Your task to perform on an android device: Search for usb-c on amazon.com, select the first entry, and add it to the cart. Image 0: 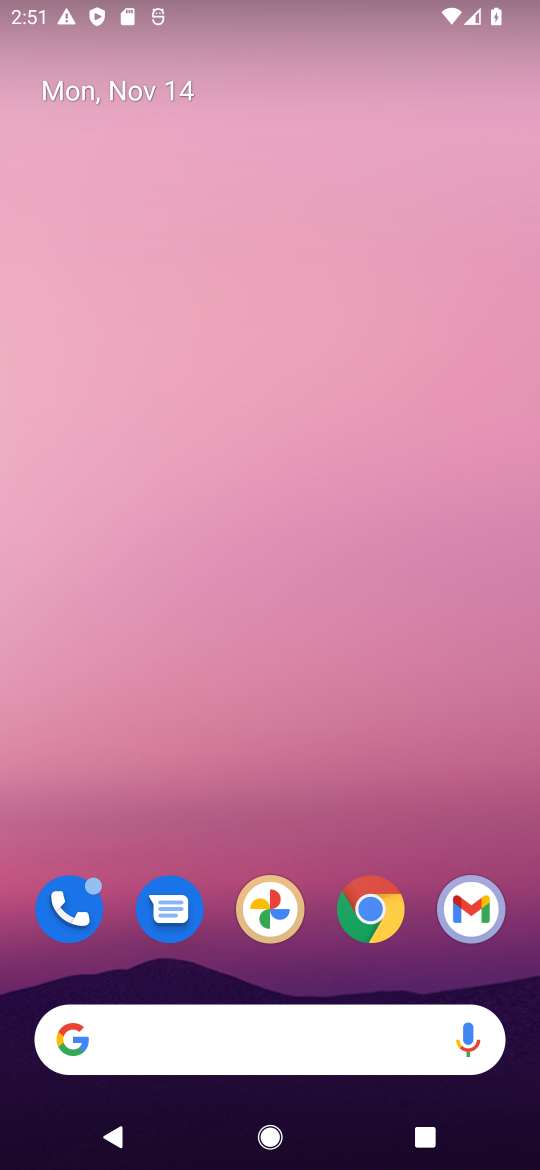
Step 0: drag from (325, 970) to (442, 96)
Your task to perform on an android device: Search for usb-c on amazon.com, select the first entry, and add it to the cart. Image 1: 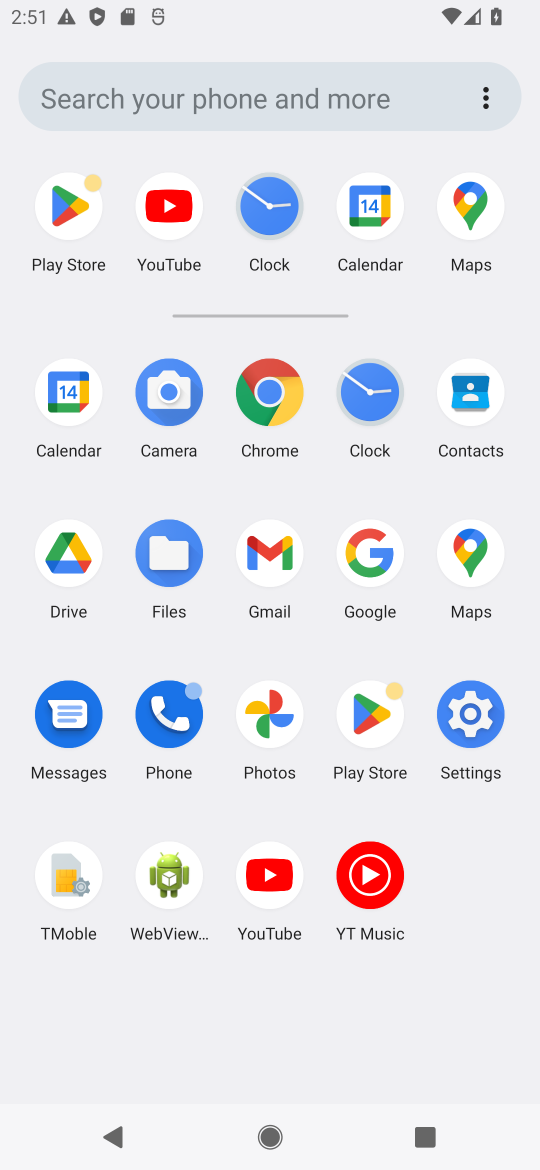
Step 1: click (272, 384)
Your task to perform on an android device: Search for usb-c on amazon.com, select the first entry, and add it to the cart. Image 2: 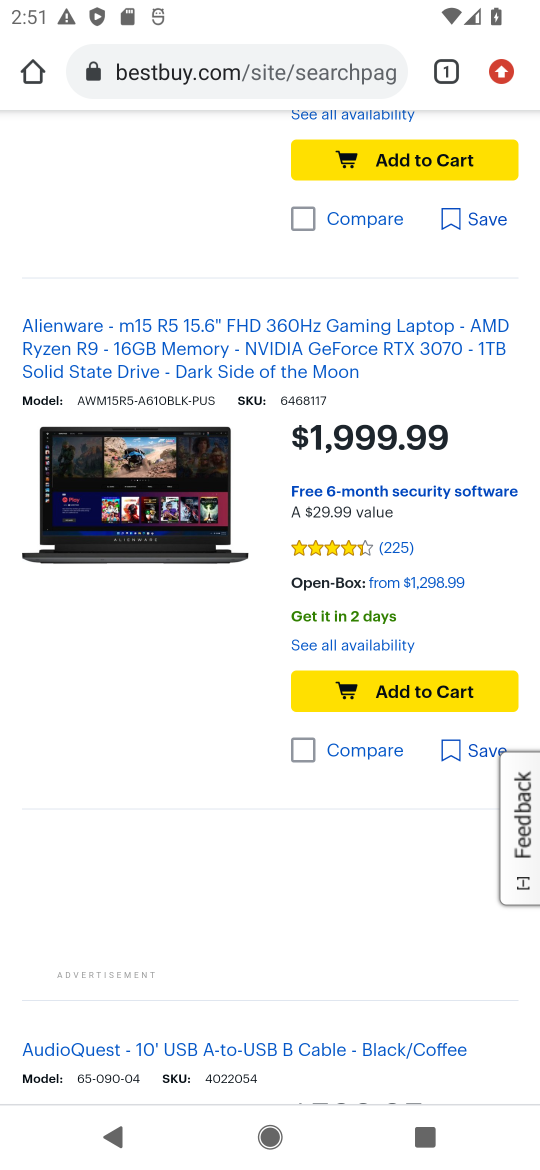
Step 2: click (233, 65)
Your task to perform on an android device: Search for usb-c on amazon.com, select the first entry, and add it to the cart. Image 3: 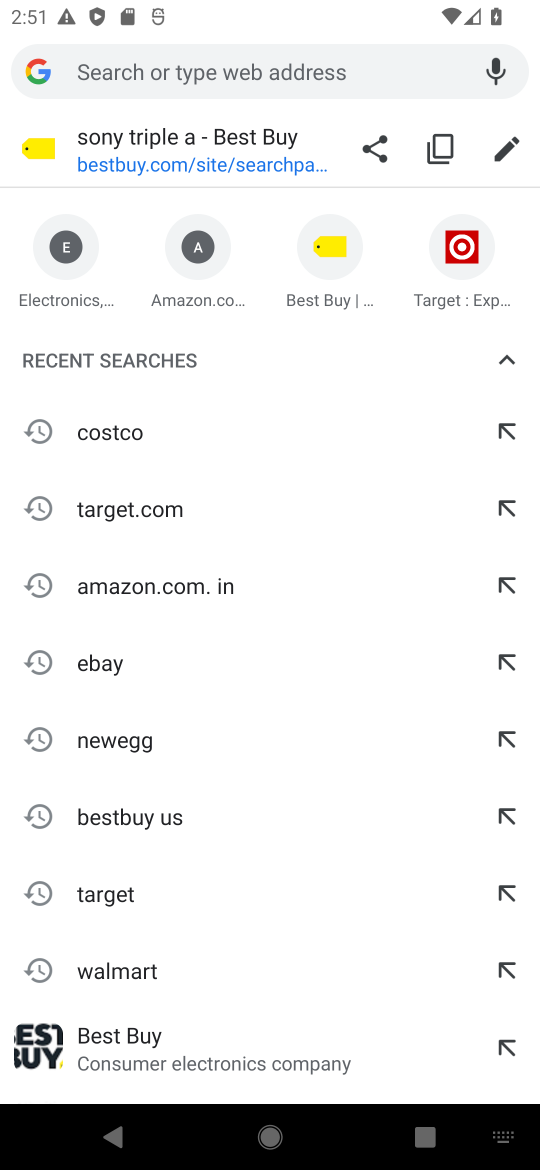
Step 3: type "amazon.com"
Your task to perform on an android device: Search for usb-c on amazon.com, select the first entry, and add it to the cart. Image 4: 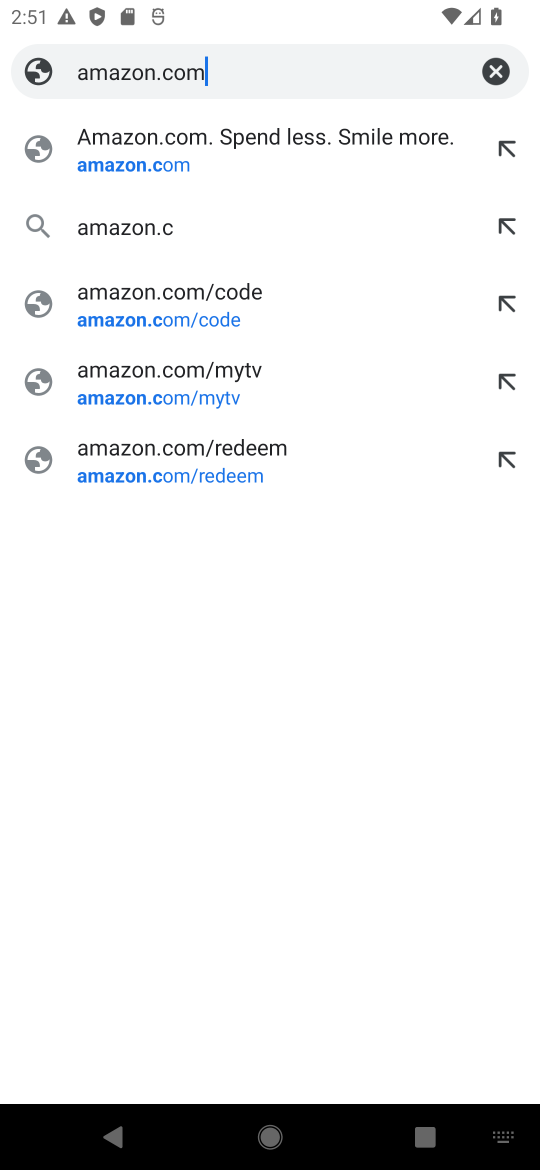
Step 4: press enter
Your task to perform on an android device: Search for usb-c on amazon.com, select the first entry, and add it to the cart. Image 5: 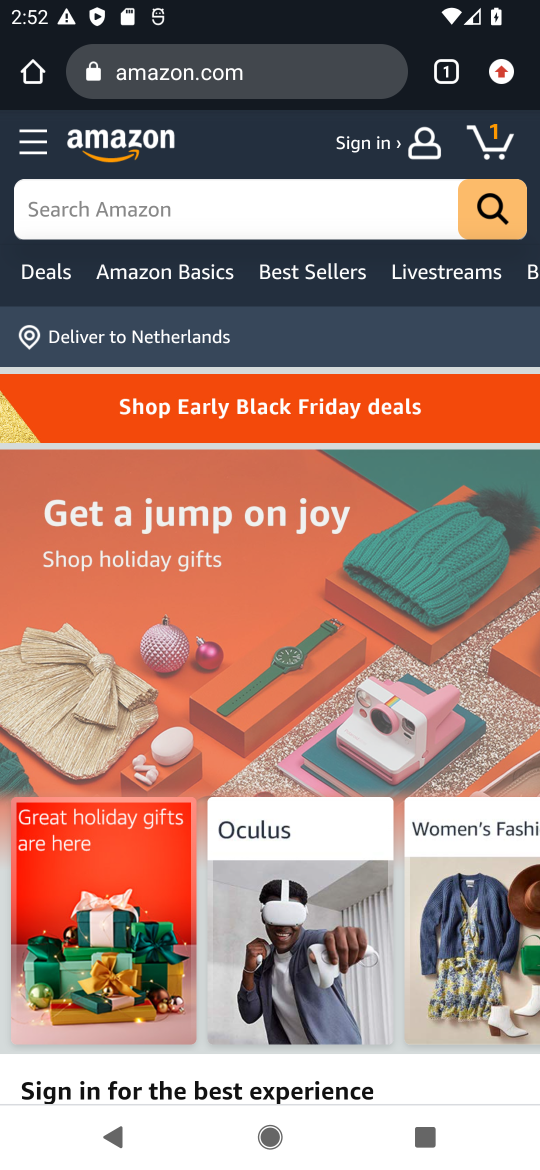
Step 5: click (300, 213)
Your task to perform on an android device: Search for usb-c on amazon.com, select the first entry, and add it to the cart. Image 6: 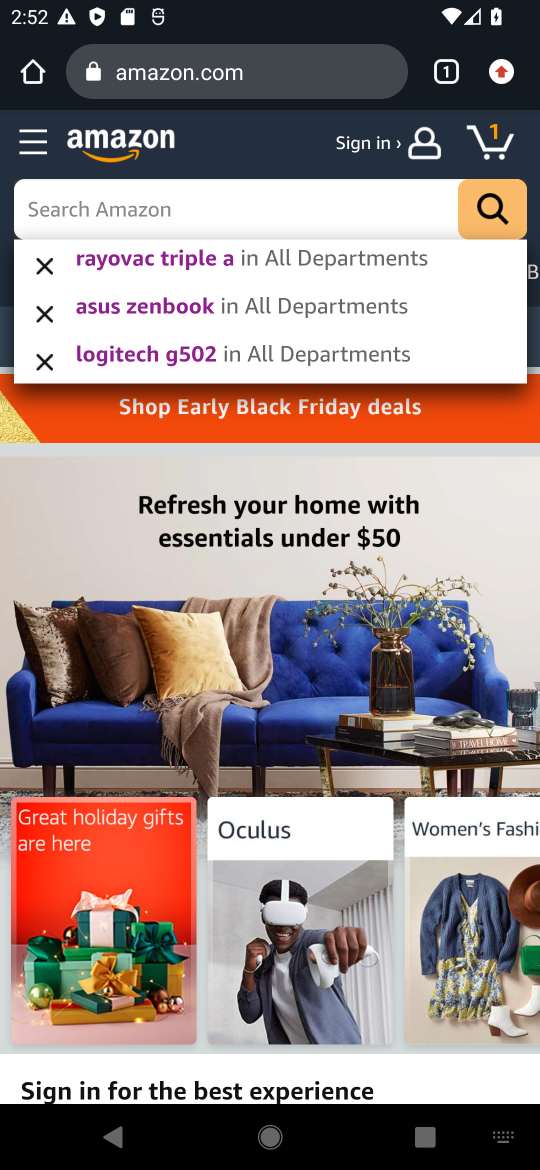
Step 6: type "usb-c"
Your task to perform on an android device: Search for usb-c on amazon.com, select the first entry, and add it to the cart. Image 7: 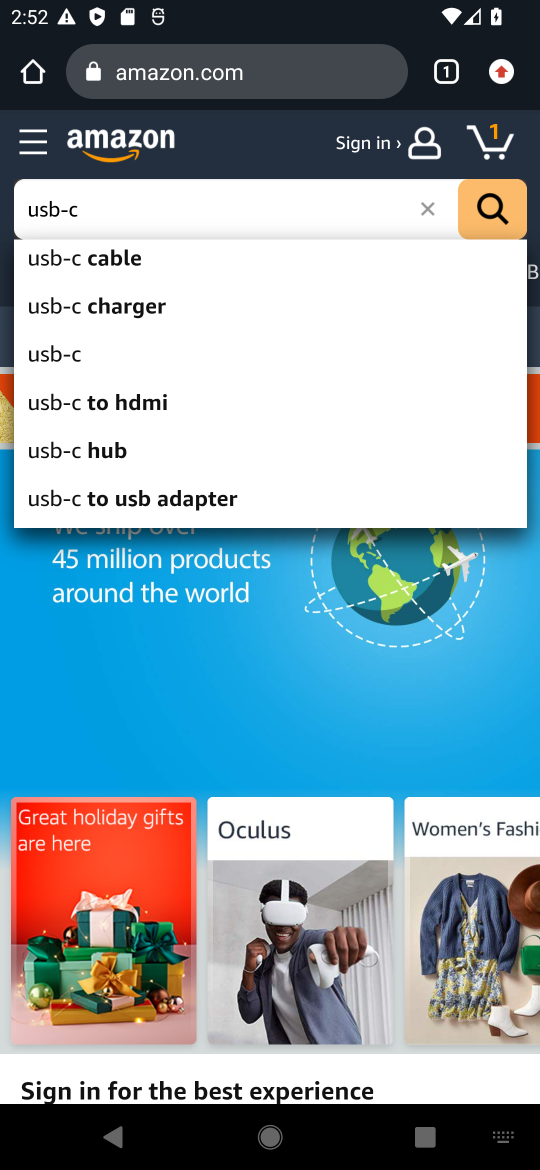
Step 7: press enter
Your task to perform on an android device: Search for usb-c on amazon.com, select the first entry, and add it to the cart. Image 8: 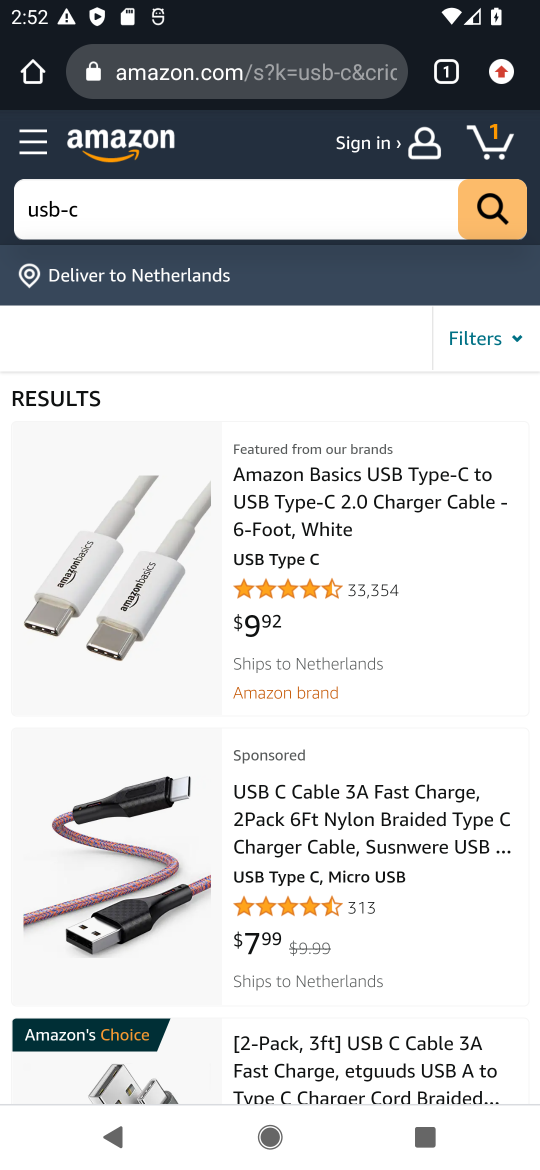
Step 8: drag from (251, 974) to (308, 584)
Your task to perform on an android device: Search for usb-c on amazon.com, select the first entry, and add it to the cart. Image 9: 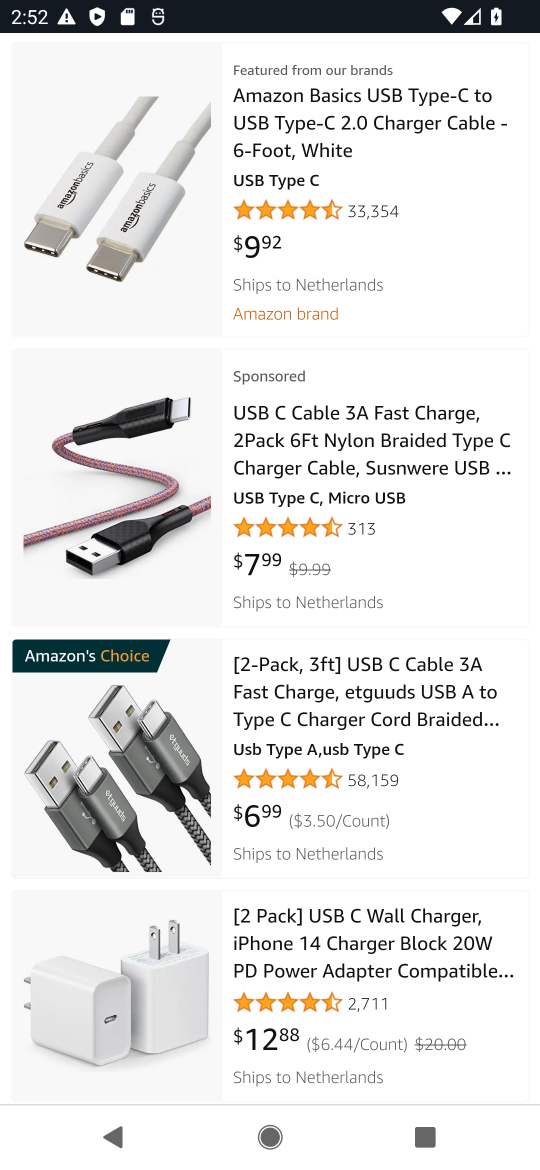
Step 9: click (327, 715)
Your task to perform on an android device: Search for usb-c on amazon.com, select the first entry, and add it to the cart. Image 10: 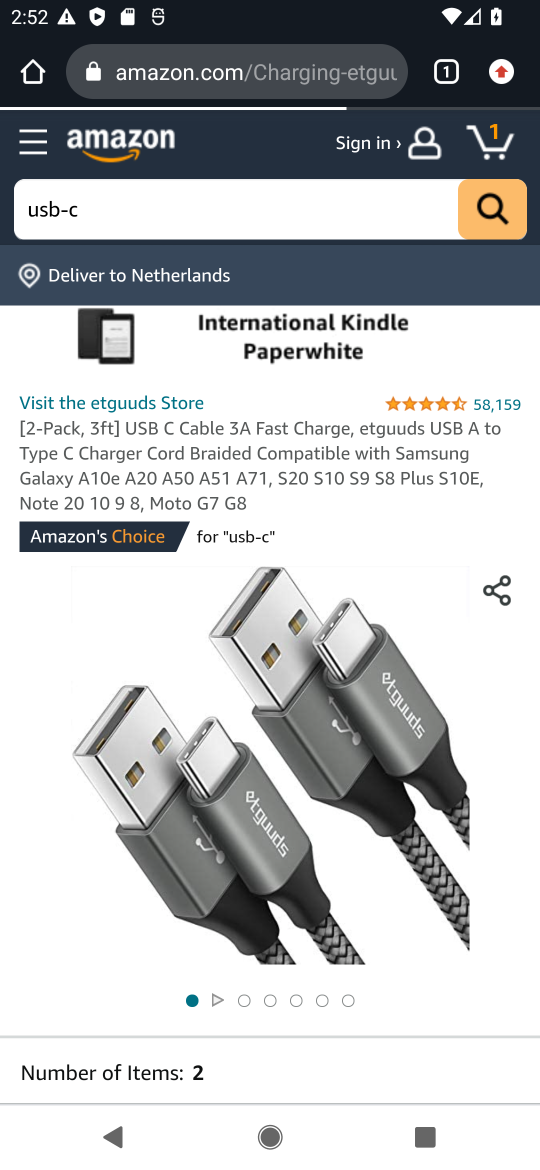
Step 10: drag from (320, 787) to (362, 99)
Your task to perform on an android device: Search for usb-c on amazon.com, select the first entry, and add it to the cart. Image 11: 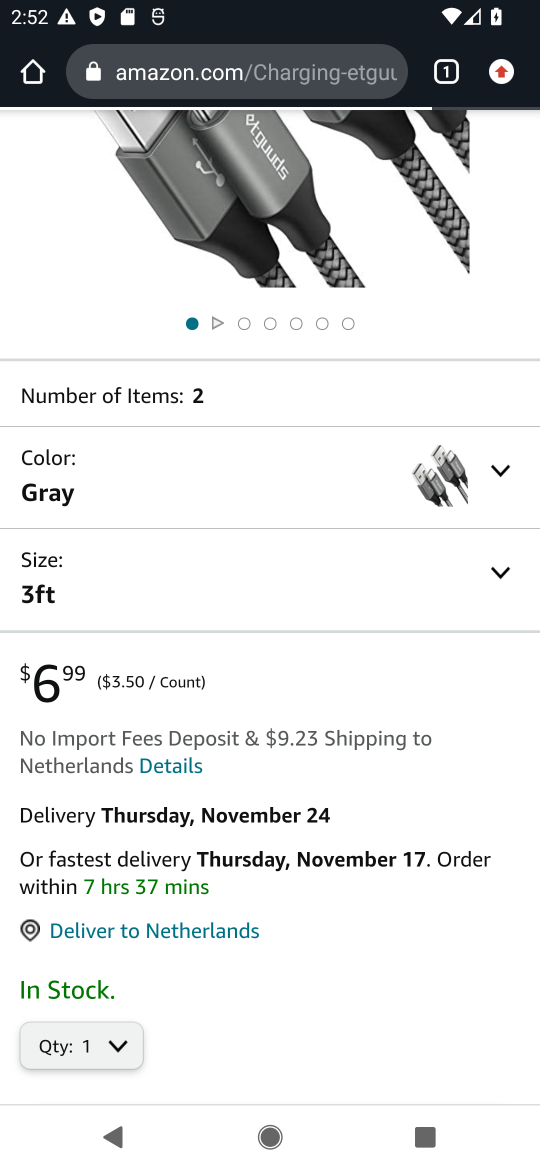
Step 11: drag from (268, 836) to (302, 120)
Your task to perform on an android device: Search for usb-c on amazon.com, select the first entry, and add it to the cart. Image 12: 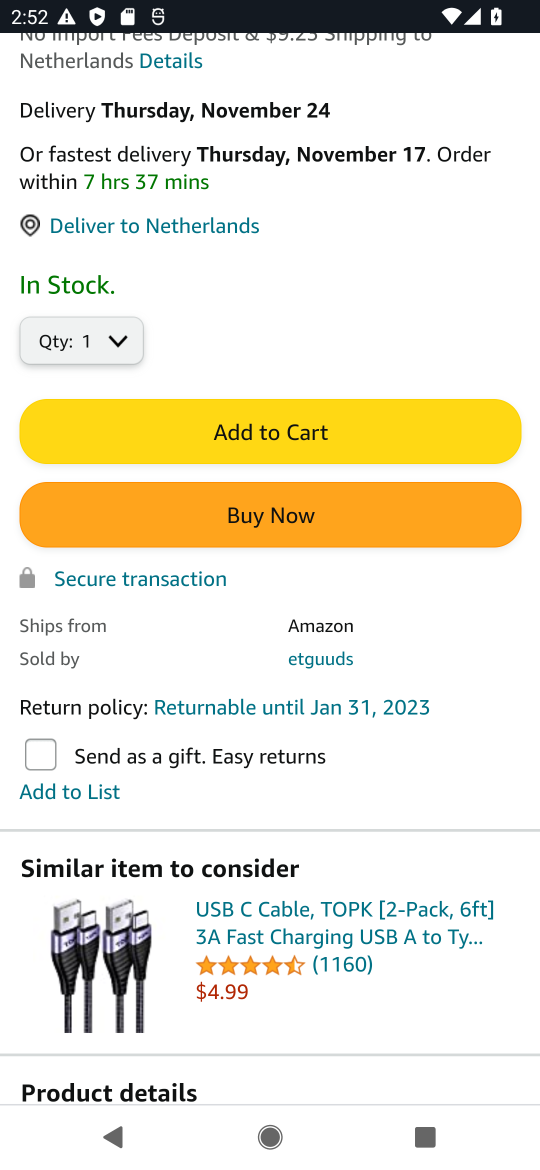
Step 12: click (339, 430)
Your task to perform on an android device: Search for usb-c on amazon.com, select the first entry, and add it to the cart. Image 13: 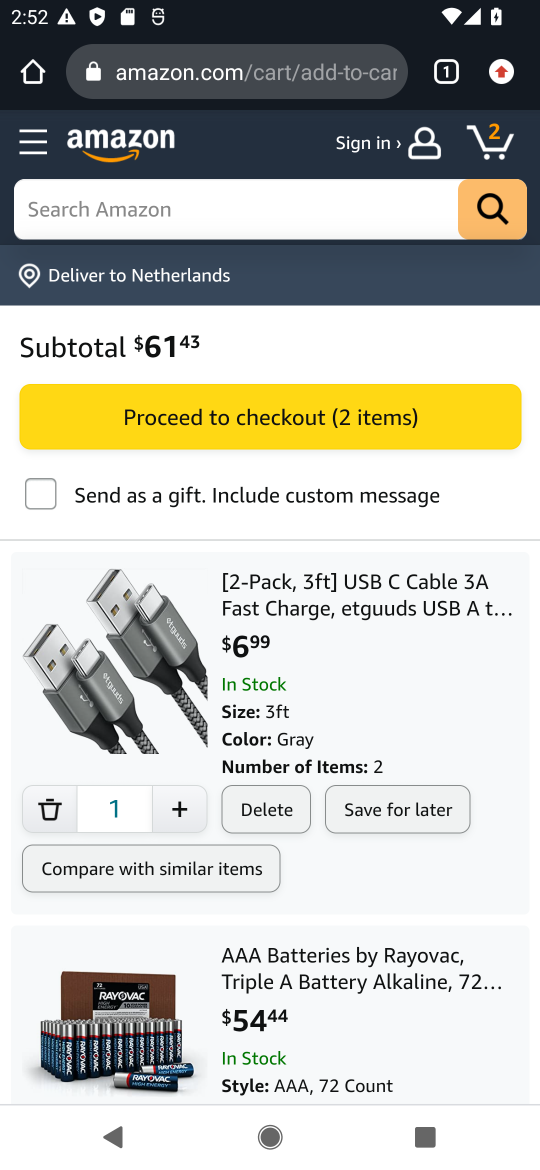
Step 13: task complete